Your task to perform on an android device: show emergency info Image 0: 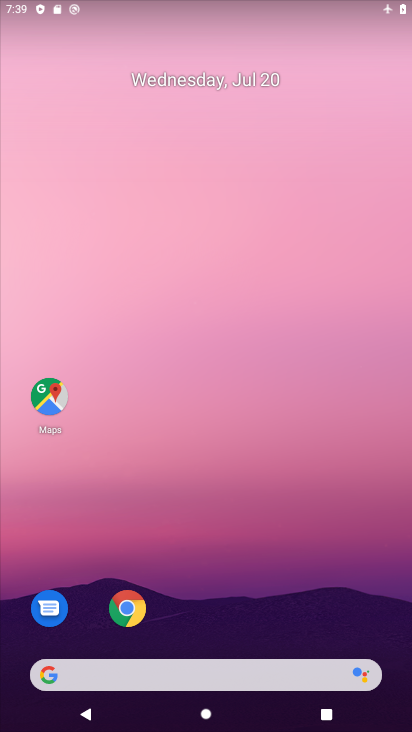
Step 0: drag from (277, 383) to (256, 134)
Your task to perform on an android device: show emergency info Image 1: 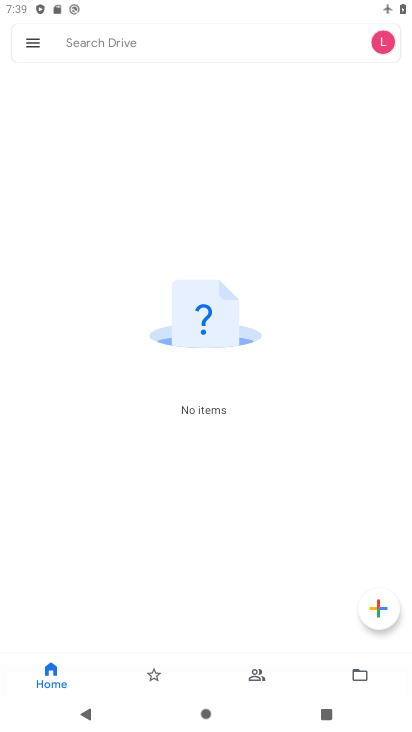
Step 1: press home button
Your task to perform on an android device: show emergency info Image 2: 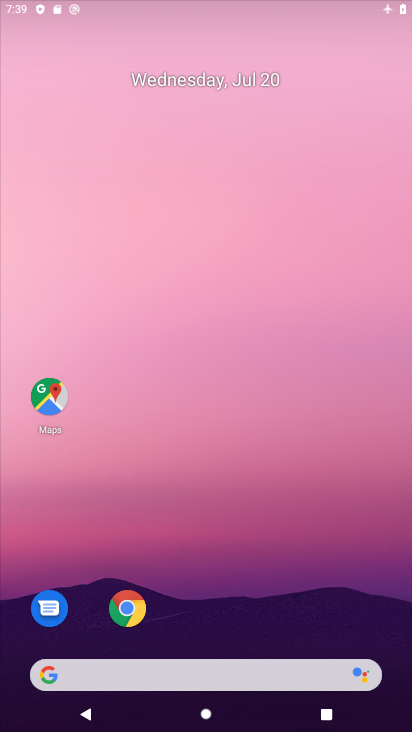
Step 2: drag from (346, 571) to (271, 128)
Your task to perform on an android device: show emergency info Image 3: 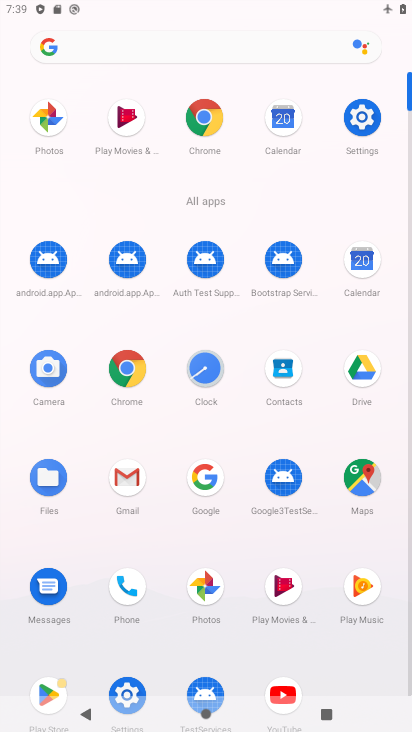
Step 3: click (369, 106)
Your task to perform on an android device: show emergency info Image 4: 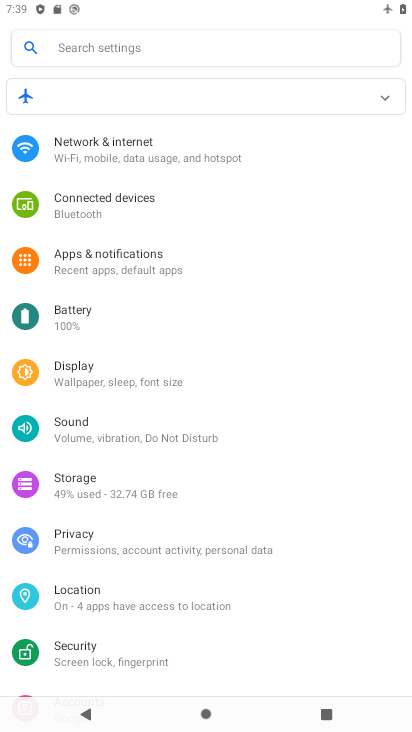
Step 4: drag from (234, 646) to (255, 238)
Your task to perform on an android device: show emergency info Image 5: 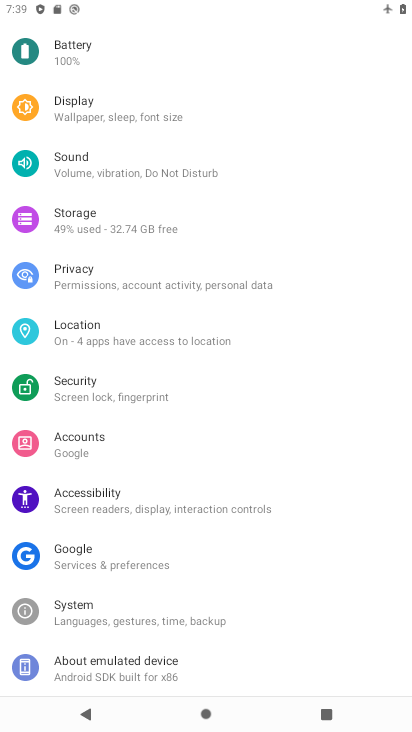
Step 5: click (113, 666)
Your task to perform on an android device: show emergency info Image 6: 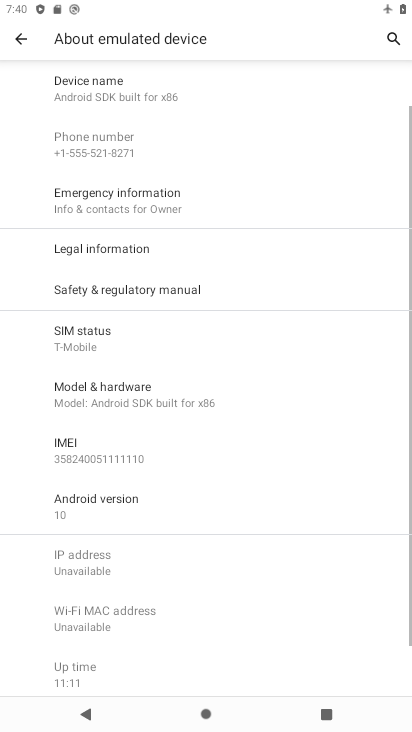
Step 6: click (138, 207)
Your task to perform on an android device: show emergency info Image 7: 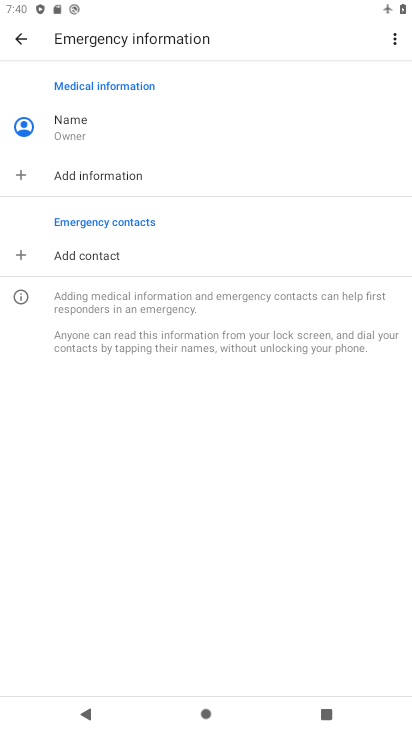
Step 7: task complete